Your task to perform on an android device: turn off data saver in the chrome app Image 0: 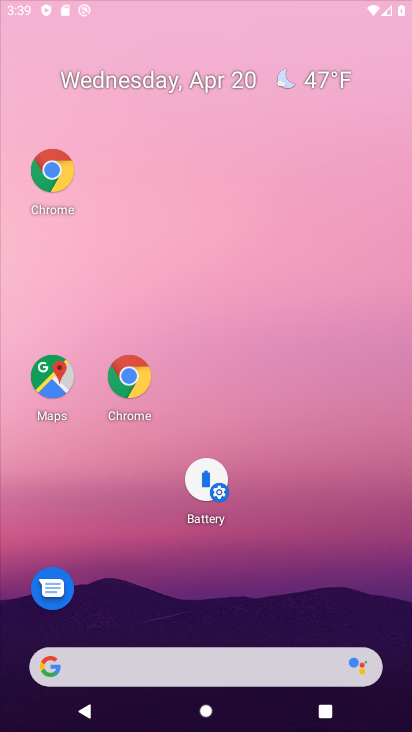
Step 0: click (314, 81)
Your task to perform on an android device: turn off data saver in the chrome app Image 1: 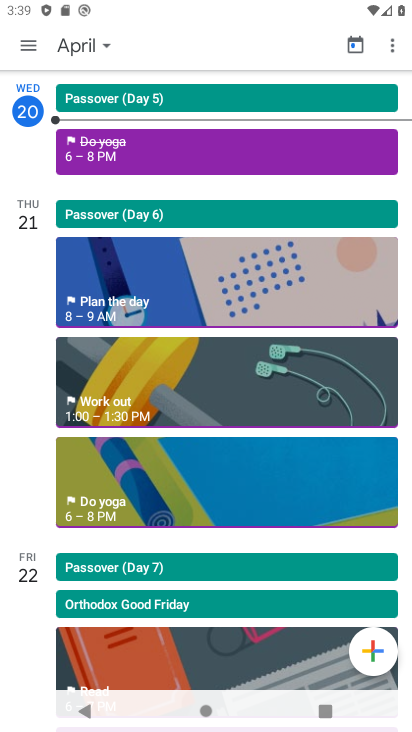
Step 1: press home button
Your task to perform on an android device: turn off data saver in the chrome app Image 2: 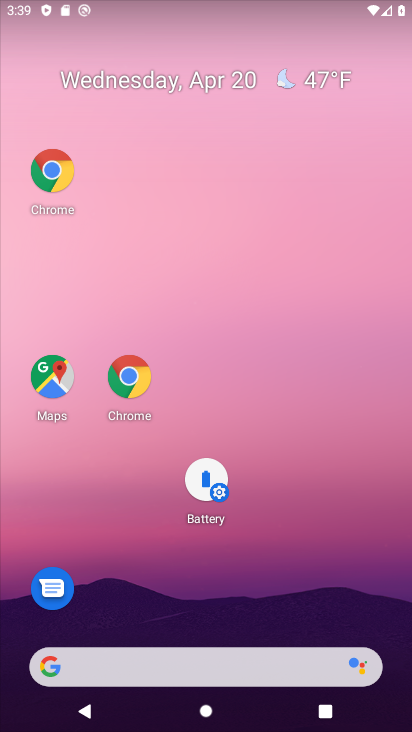
Step 2: drag from (320, 678) to (359, 0)
Your task to perform on an android device: turn off data saver in the chrome app Image 3: 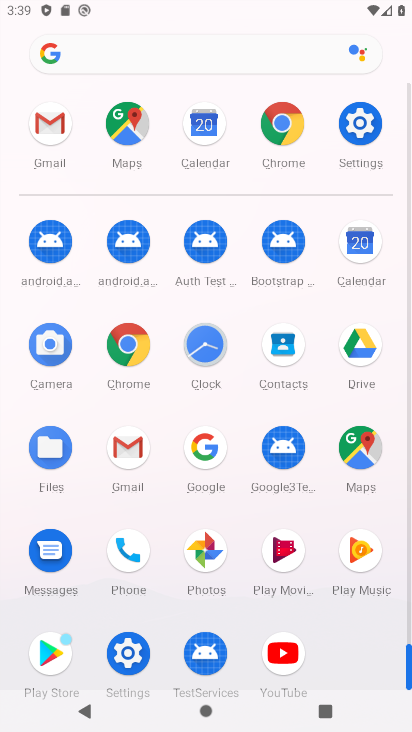
Step 3: click (132, 361)
Your task to perform on an android device: turn off data saver in the chrome app Image 4: 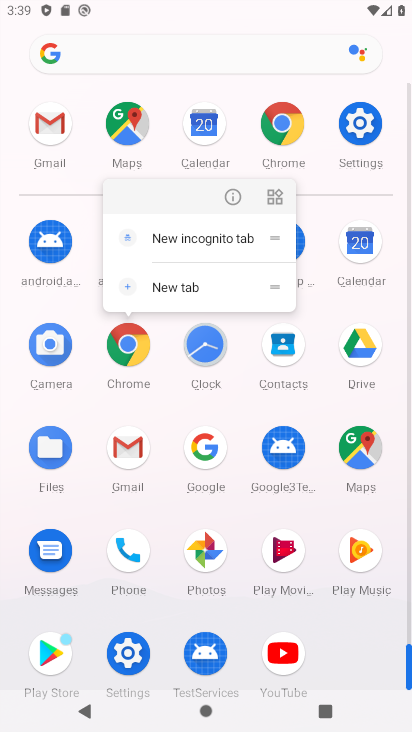
Step 4: click (123, 350)
Your task to perform on an android device: turn off data saver in the chrome app Image 5: 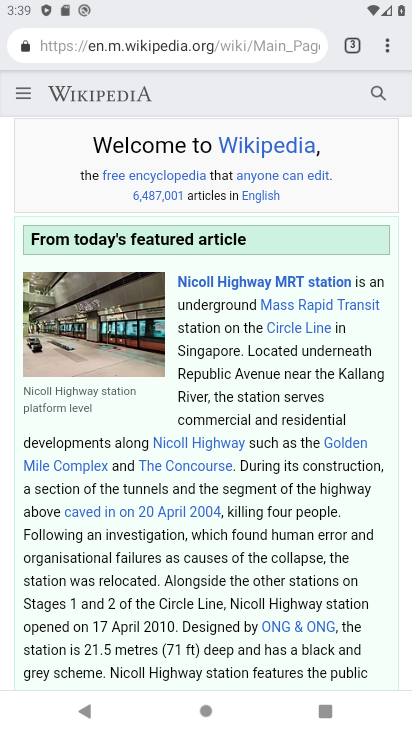
Step 5: click (378, 40)
Your task to perform on an android device: turn off data saver in the chrome app Image 6: 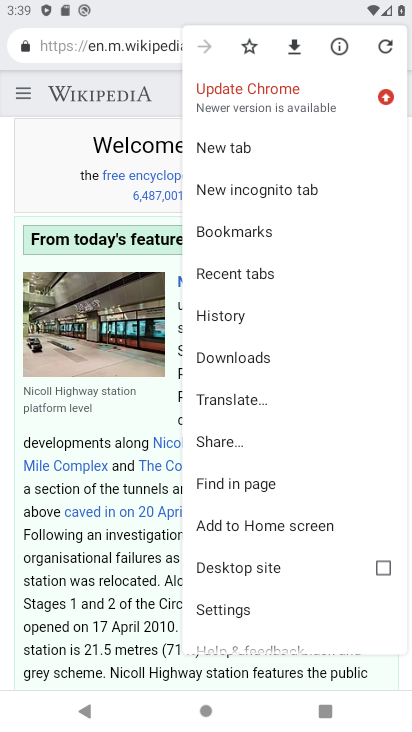
Step 6: click (242, 619)
Your task to perform on an android device: turn off data saver in the chrome app Image 7: 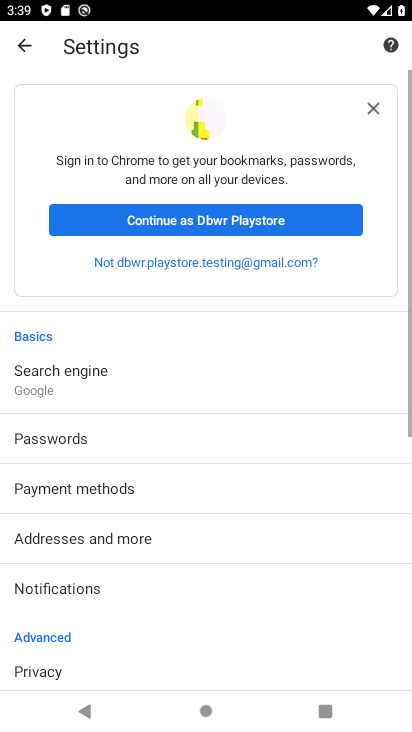
Step 7: drag from (245, 582) to (288, 71)
Your task to perform on an android device: turn off data saver in the chrome app Image 8: 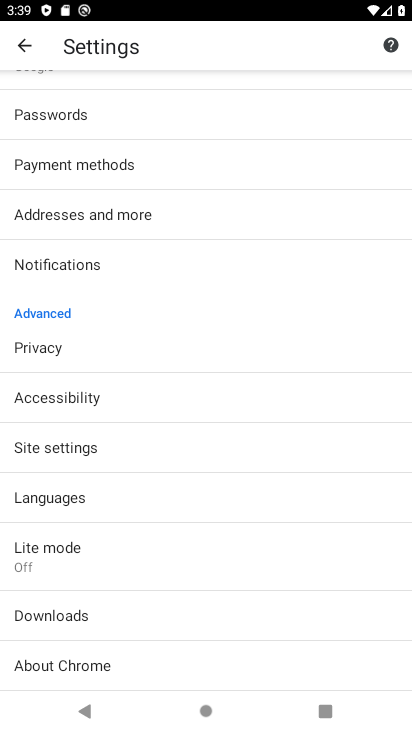
Step 8: click (117, 565)
Your task to perform on an android device: turn off data saver in the chrome app Image 9: 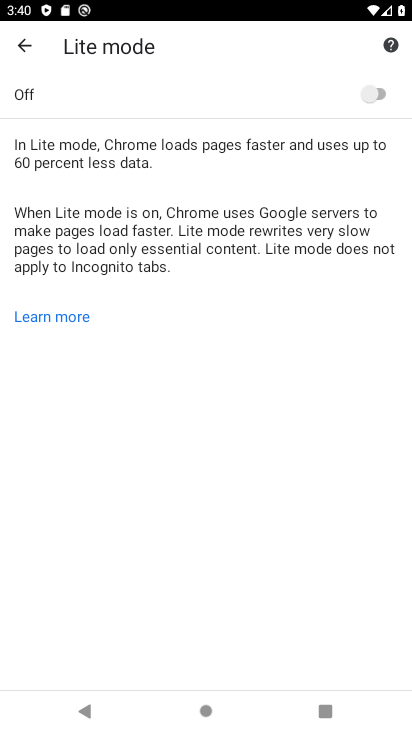
Step 9: task complete